Your task to perform on an android device: Search for Italian restaurants on Maps Image 0: 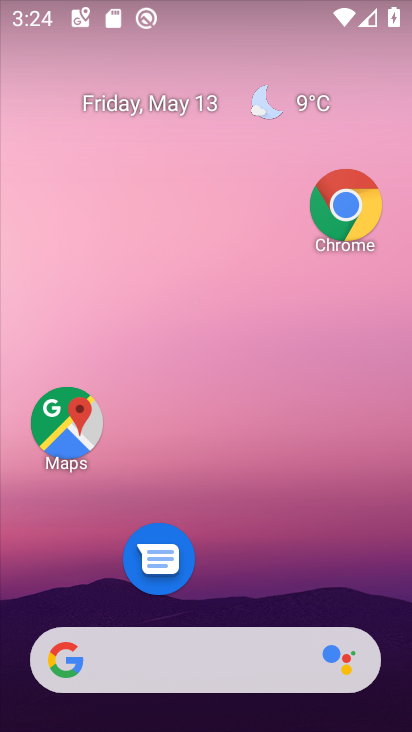
Step 0: click (83, 418)
Your task to perform on an android device: Search for Italian restaurants on Maps Image 1: 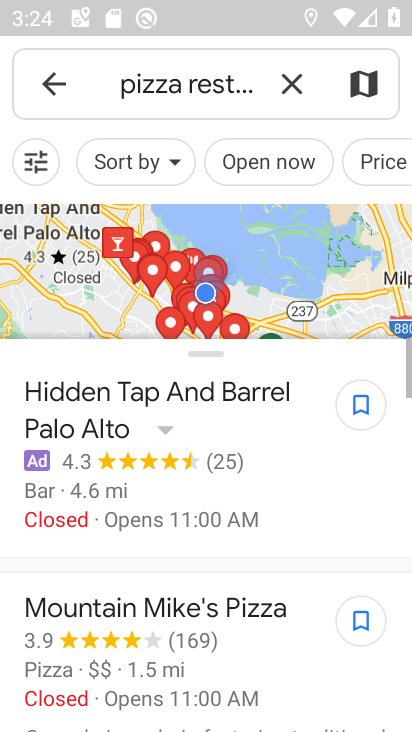
Step 1: click (283, 79)
Your task to perform on an android device: Search for Italian restaurants on Maps Image 2: 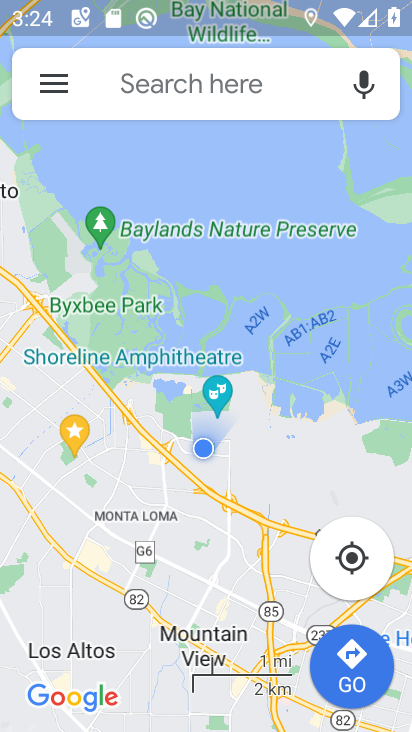
Step 2: click (204, 107)
Your task to perform on an android device: Search for Italian restaurants on Maps Image 3: 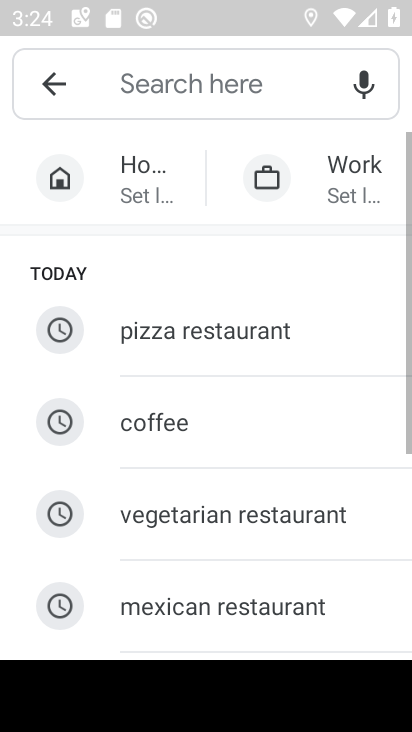
Step 3: drag from (172, 617) to (286, 160)
Your task to perform on an android device: Search for Italian restaurants on Maps Image 4: 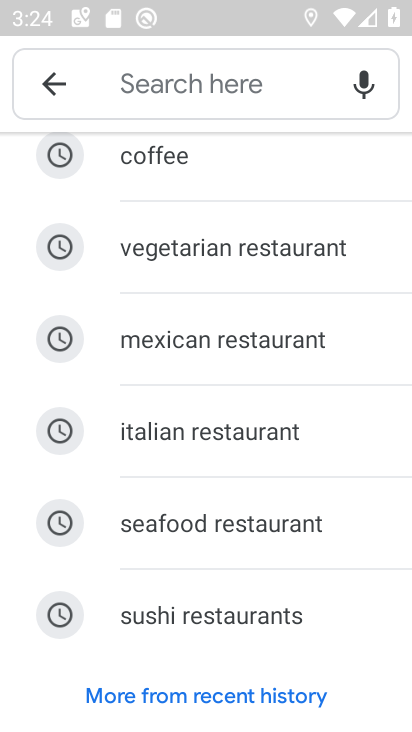
Step 4: click (203, 442)
Your task to perform on an android device: Search for Italian restaurants on Maps Image 5: 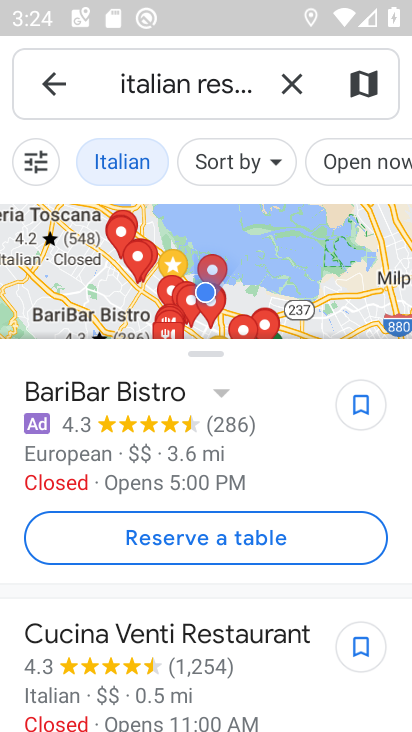
Step 5: task complete